Your task to perform on an android device: Go to Google Image 0: 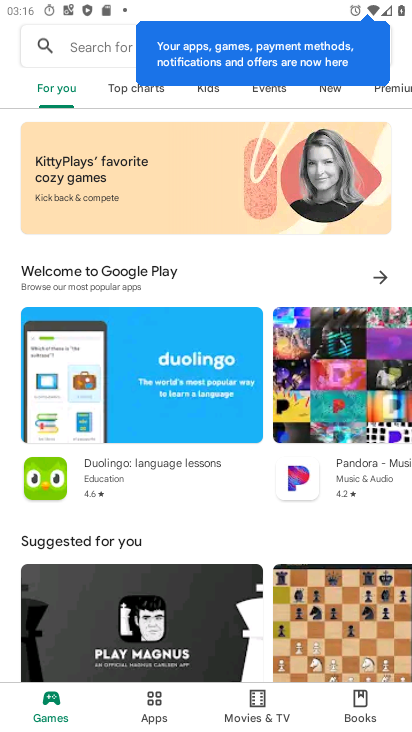
Step 0: press home button
Your task to perform on an android device: Go to Google Image 1: 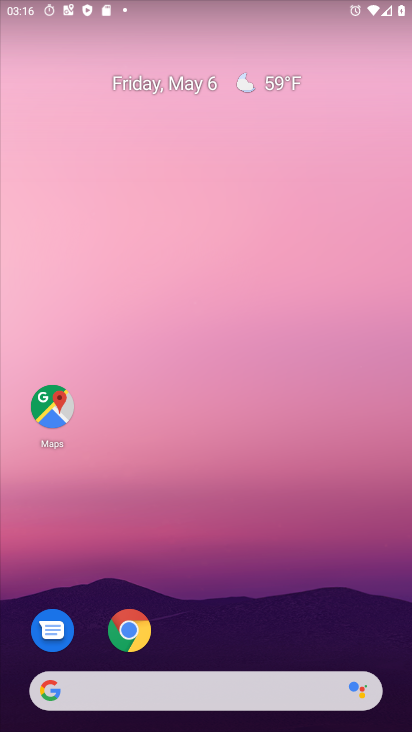
Step 1: drag from (178, 610) to (194, 174)
Your task to perform on an android device: Go to Google Image 2: 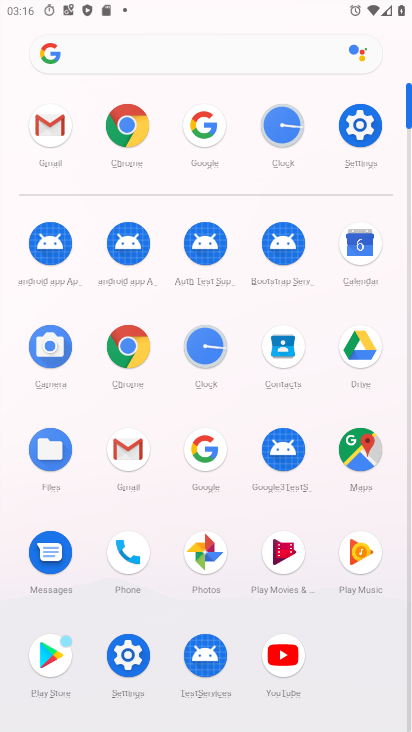
Step 2: click (201, 119)
Your task to perform on an android device: Go to Google Image 3: 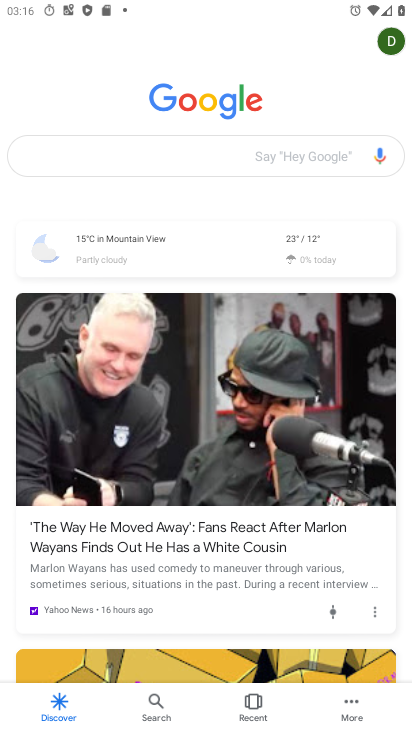
Step 3: task complete